Your task to perform on an android device: Check the weather Image 0: 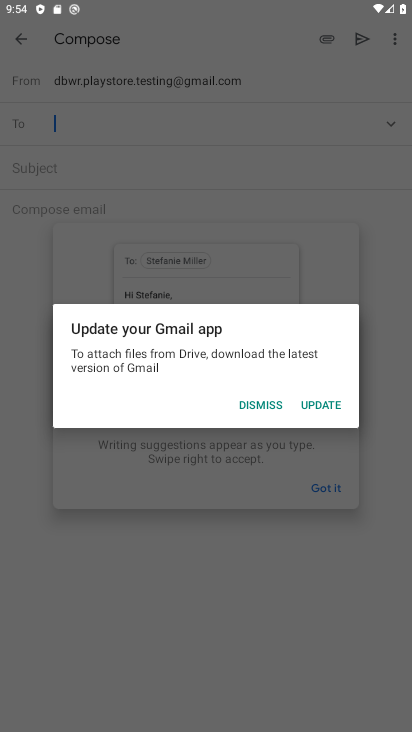
Step 0: press home button
Your task to perform on an android device: Check the weather Image 1: 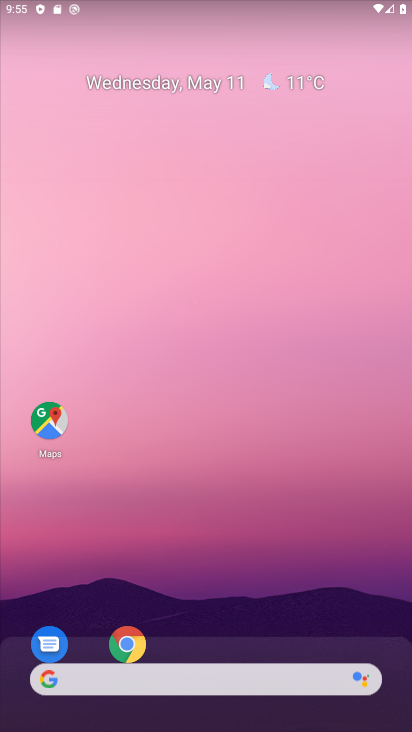
Step 1: click (127, 679)
Your task to perform on an android device: Check the weather Image 2: 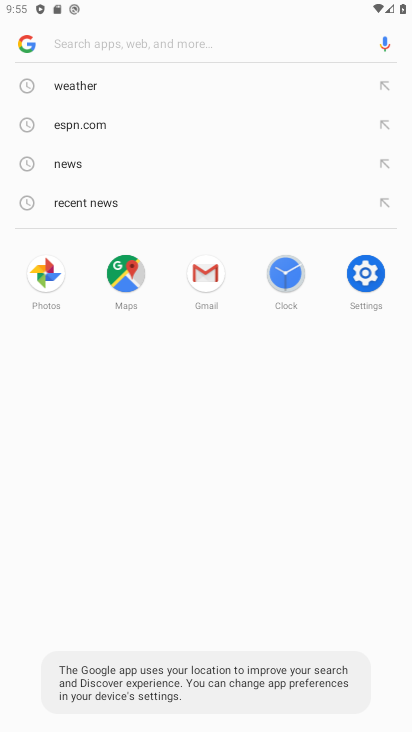
Step 2: click (120, 693)
Your task to perform on an android device: Check the weather Image 3: 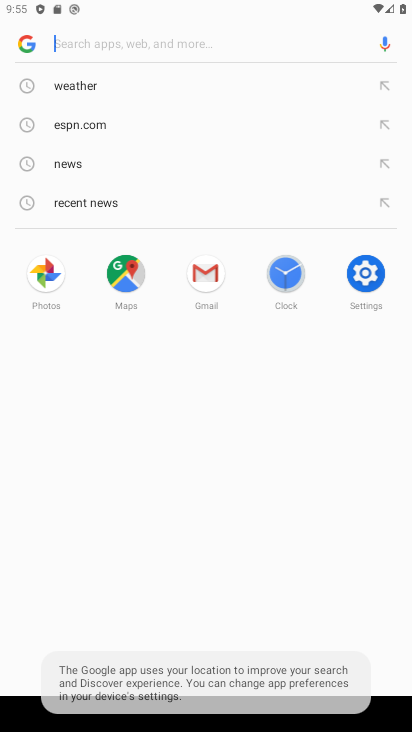
Step 3: click (59, 87)
Your task to perform on an android device: Check the weather Image 4: 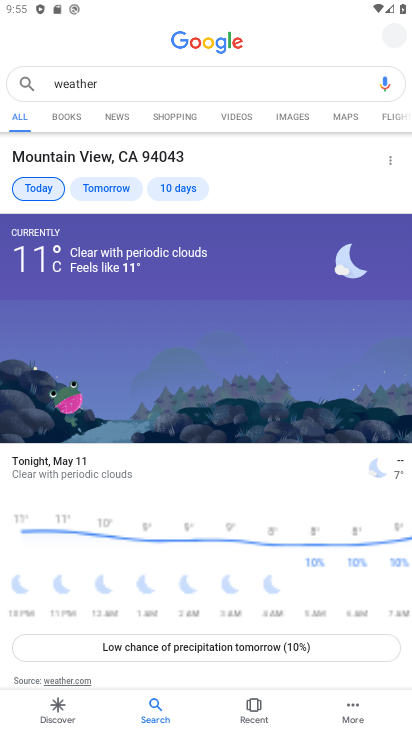
Step 4: task complete